Your task to perform on an android device: set an alarm Image 0: 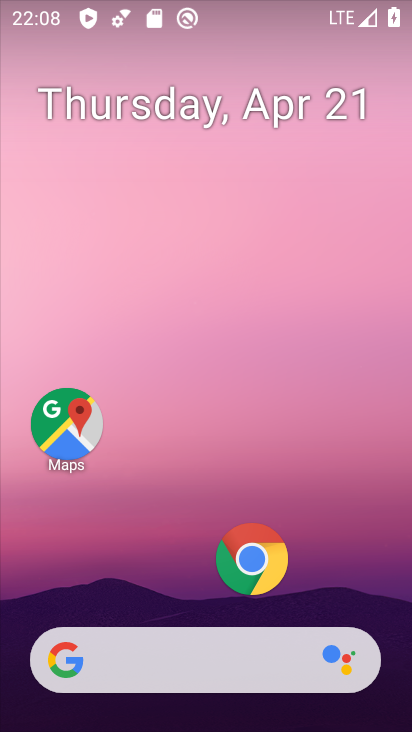
Step 0: press home button
Your task to perform on an android device: set an alarm Image 1: 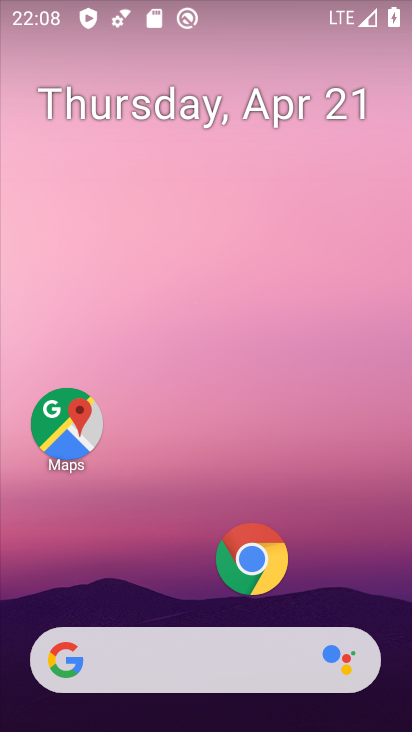
Step 1: drag from (149, 504) to (156, 348)
Your task to perform on an android device: set an alarm Image 2: 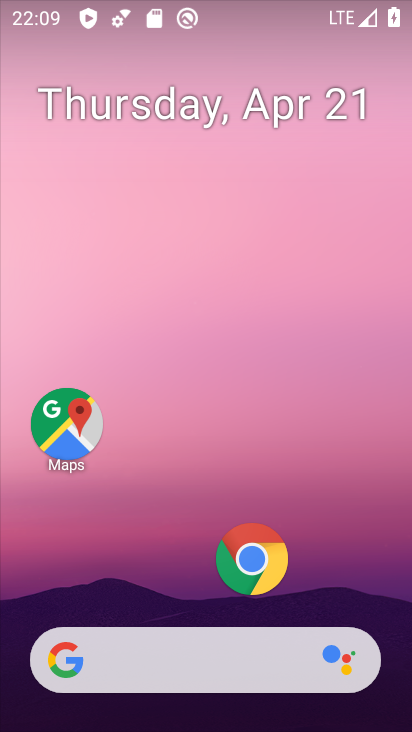
Step 2: drag from (152, 591) to (172, 66)
Your task to perform on an android device: set an alarm Image 3: 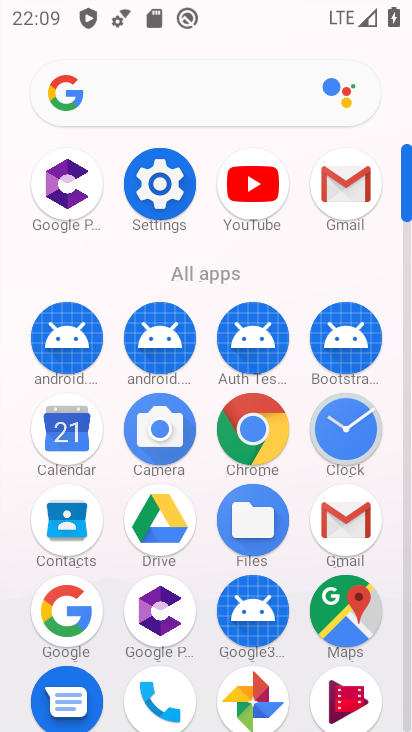
Step 3: click (339, 434)
Your task to perform on an android device: set an alarm Image 4: 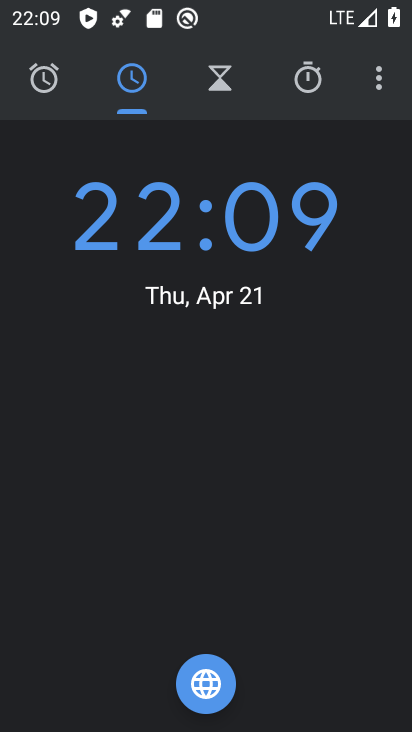
Step 4: click (154, 558)
Your task to perform on an android device: set an alarm Image 5: 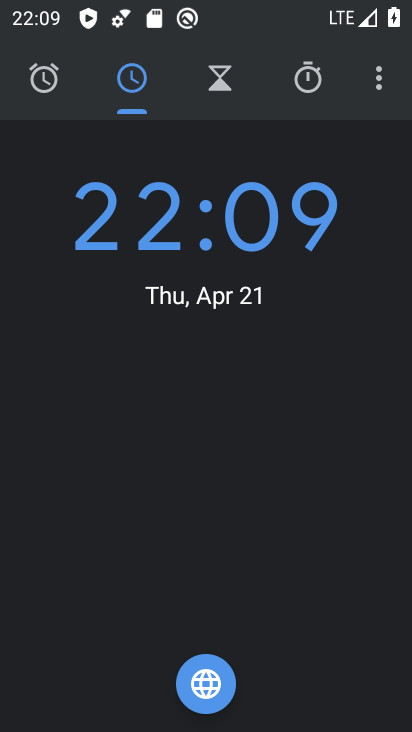
Step 5: click (34, 100)
Your task to perform on an android device: set an alarm Image 6: 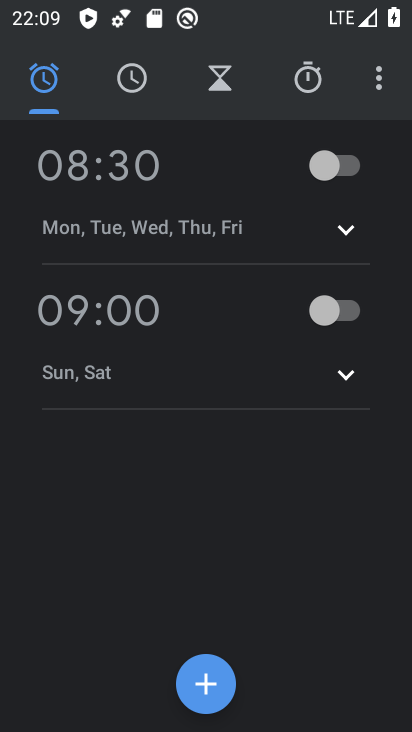
Step 6: click (362, 167)
Your task to perform on an android device: set an alarm Image 7: 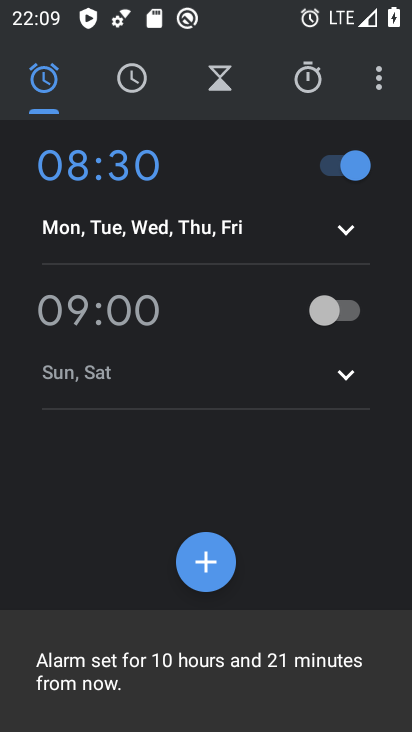
Step 7: task complete